Your task to perform on an android device: turn off location Image 0: 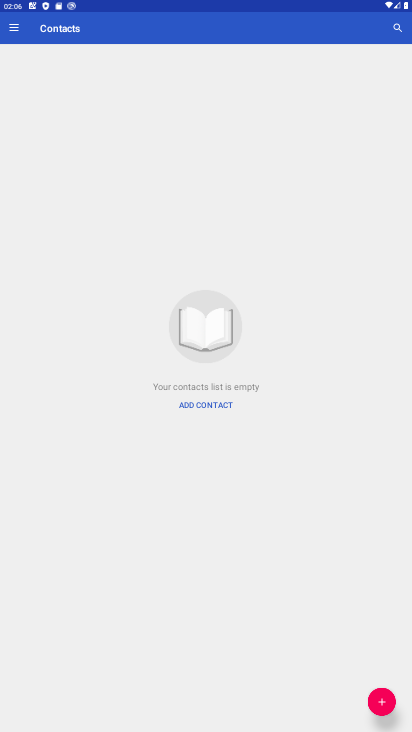
Step 0: press home button
Your task to perform on an android device: turn off location Image 1: 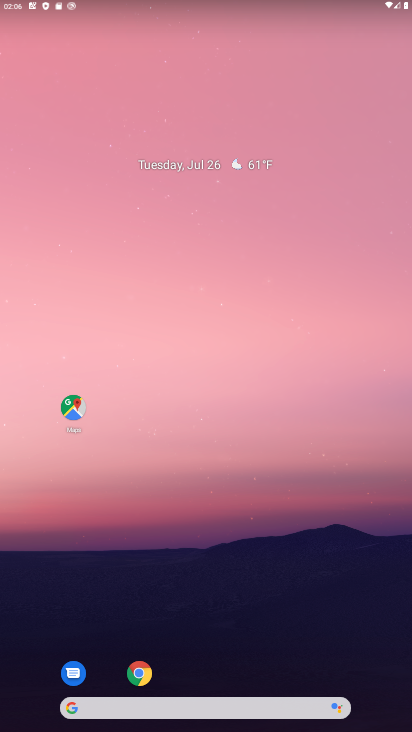
Step 1: drag from (214, 728) to (213, 53)
Your task to perform on an android device: turn off location Image 2: 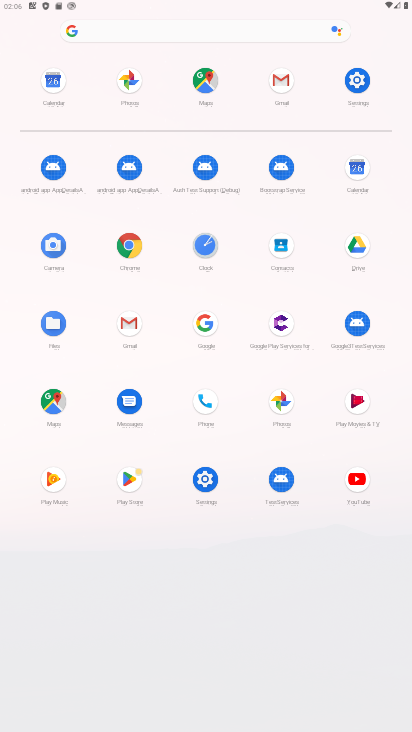
Step 2: click (356, 74)
Your task to perform on an android device: turn off location Image 3: 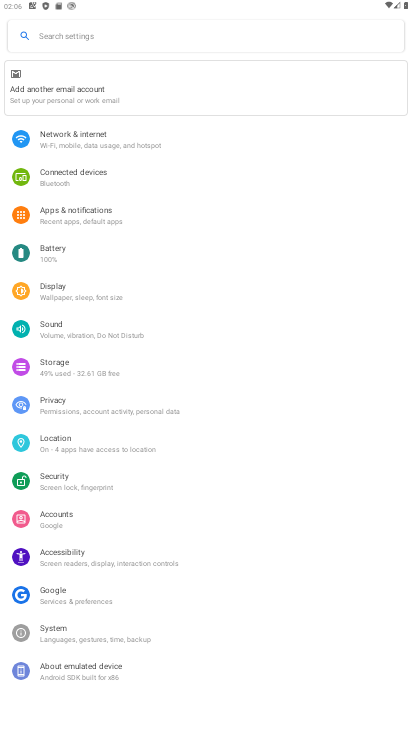
Step 3: click (63, 441)
Your task to perform on an android device: turn off location Image 4: 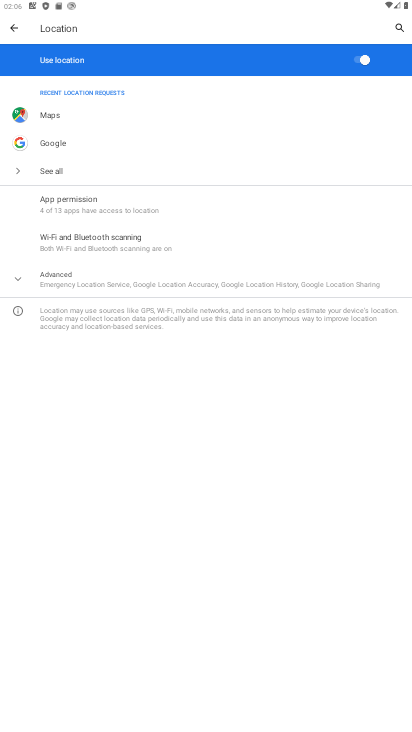
Step 4: click (359, 56)
Your task to perform on an android device: turn off location Image 5: 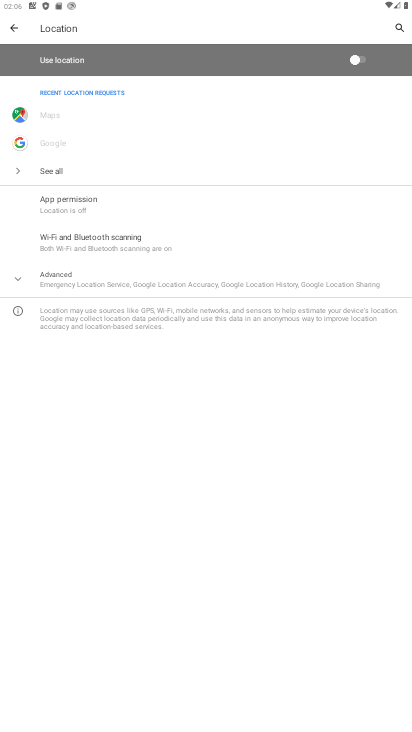
Step 5: task complete